Your task to perform on an android device: turn on showing notifications on the lock screen Image 0: 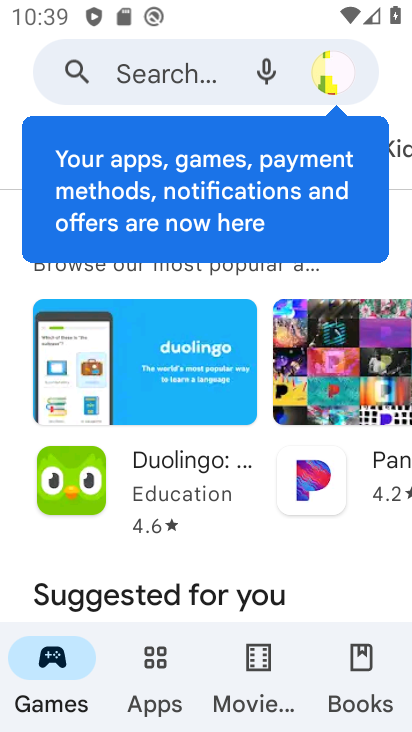
Step 0: press home button
Your task to perform on an android device: turn on showing notifications on the lock screen Image 1: 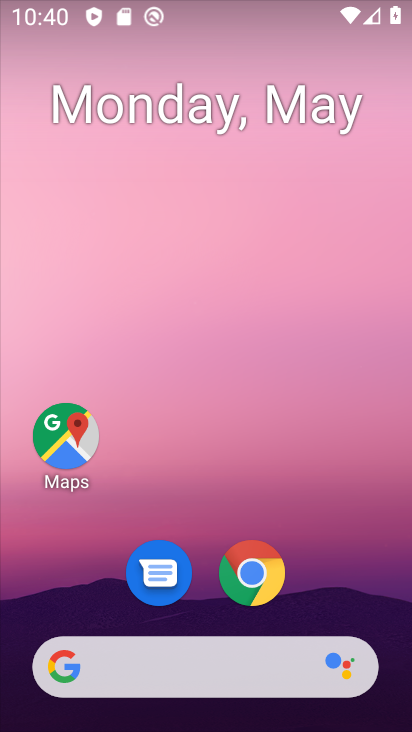
Step 1: drag from (332, 598) to (239, 88)
Your task to perform on an android device: turn on showing notifications on the lock screen Image 2: 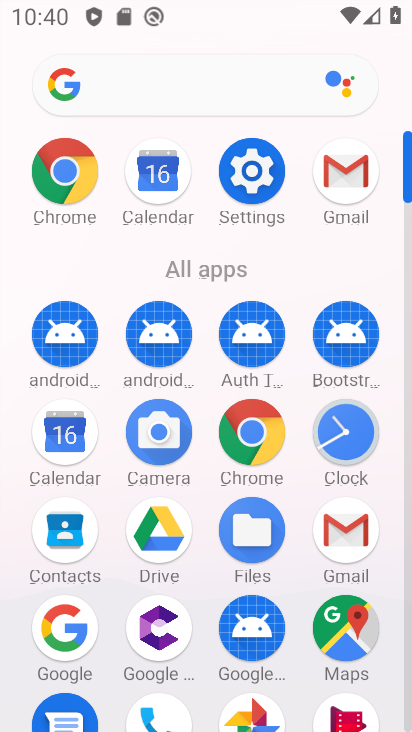
Step 2: click (243, 179)
Your task to perform on an android device: turn on showing notifications on the lock screen Image 3: 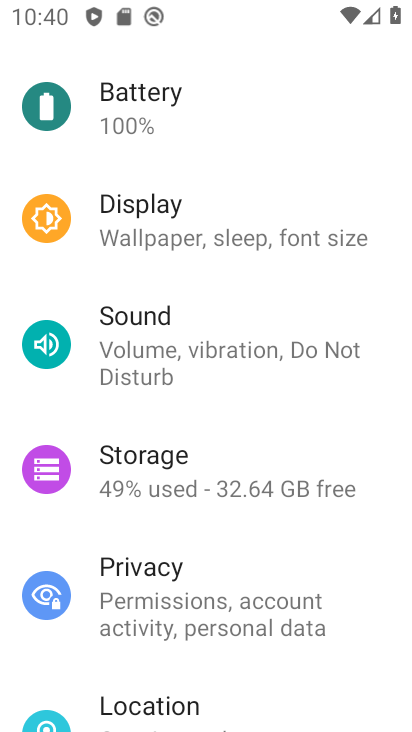
Step 3: drag from (236, 569) to (208, 114)
Your task to perform on an android device: turn on showing notifications on the lock screen Image 4: 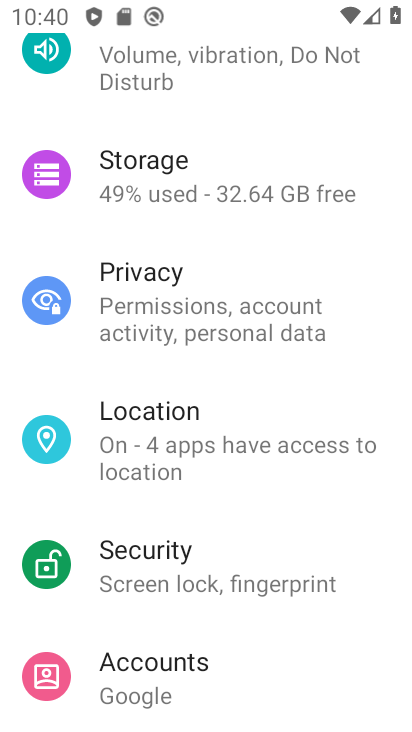
Step 4: drag from (205, 598) to (188, 128)
Your task to perform on an android device: turn on showing notifications on the lock screen Image 5: 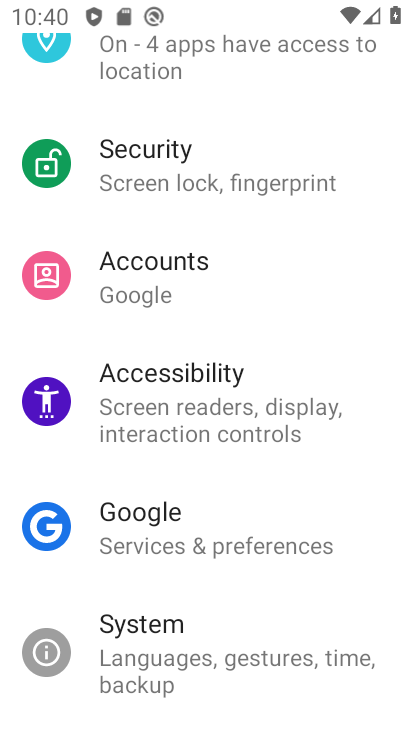
Step 5: drag from (224, 473) to (181, 142)
Your task to perform on an android device: turn on showing notifications on the lock screen Image 6: 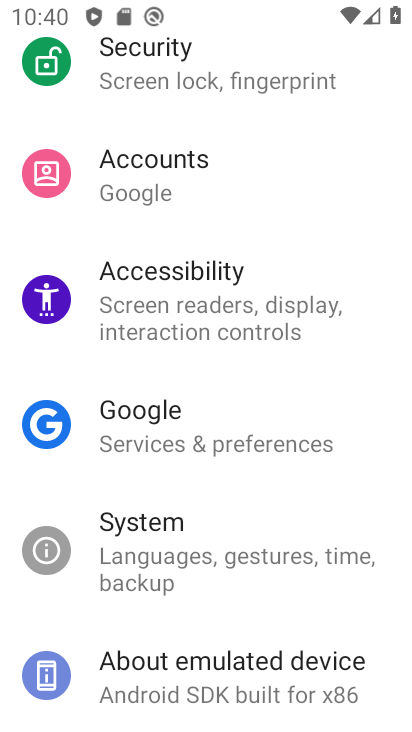
Step 6: drag from (200, 178) to (188, 721)
Your task to perform on an android device: turn on showing notifications on the lock screen Image 7: 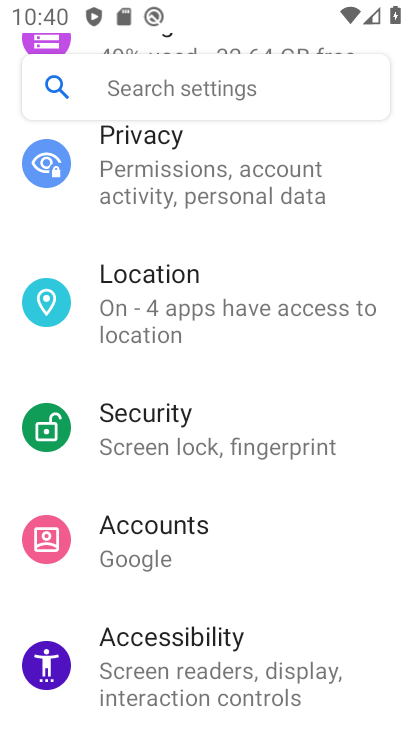
Step 7: drag from (220, 203) to (222, 650)
Your task to perform on an android device: turn on showing notifications on the lock screen Image 8: 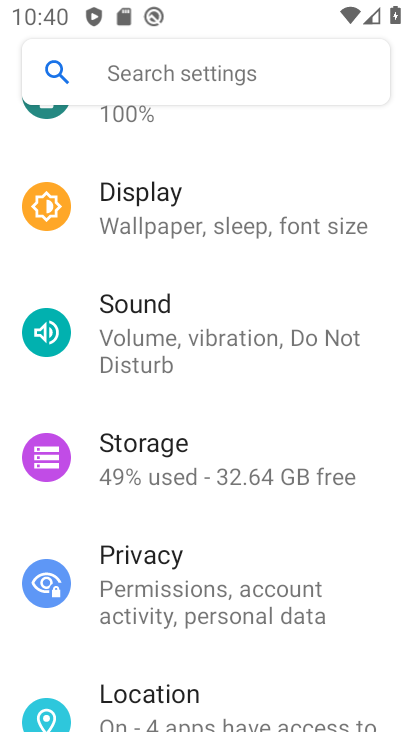
Step 8: drag from (171, 207) to (190, 594)
Your task to perform on an android device: turn on showing notifications on the lock screen Image 9: 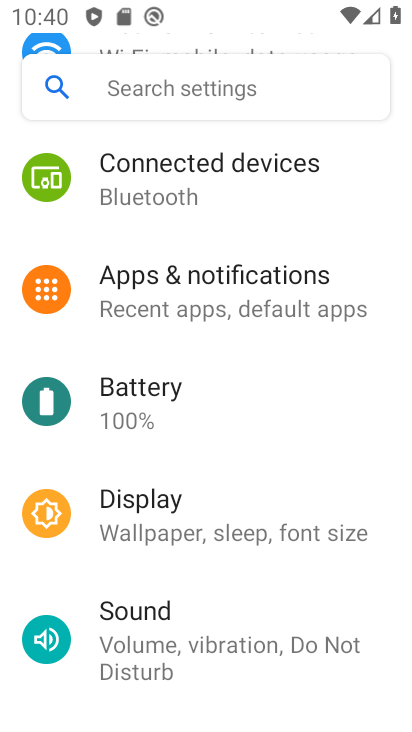
Step 9: drag from (187, 206) to (180, 600)
Your task to perform on an android device: turn on showing notifications on the lock screen Image 10: 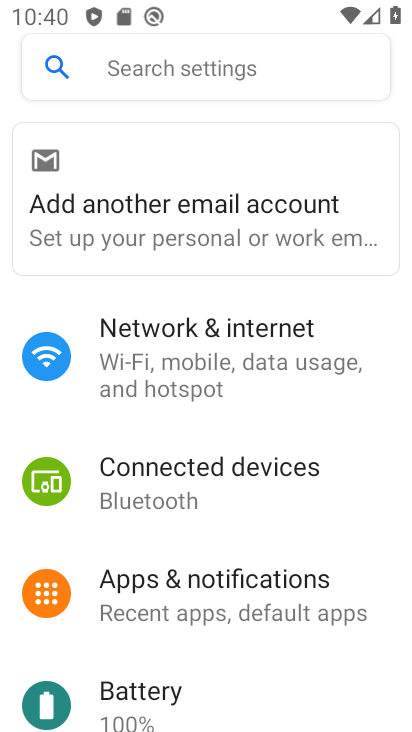
Step 10: click (190, 588)
Your task to perform on an android device: turn on showing notifications on the lock screen Image 11: 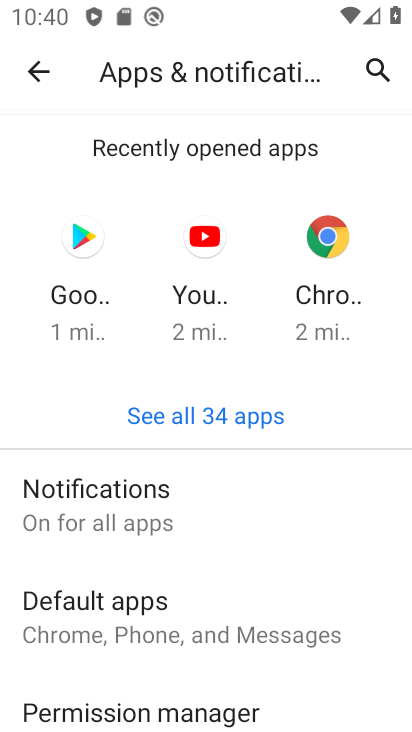
Step 11: click (231, 512)
Your task to perform on an android device: turn on showing notifications on the lock screen Image 12: 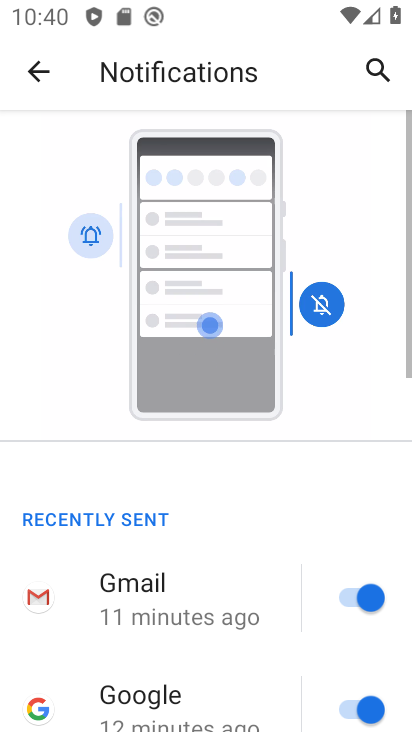
Step 12: drag from (261, 641) to (258, 65)
Your task to perform on an android device: turn on showing notifications on the lock screen Image 13: 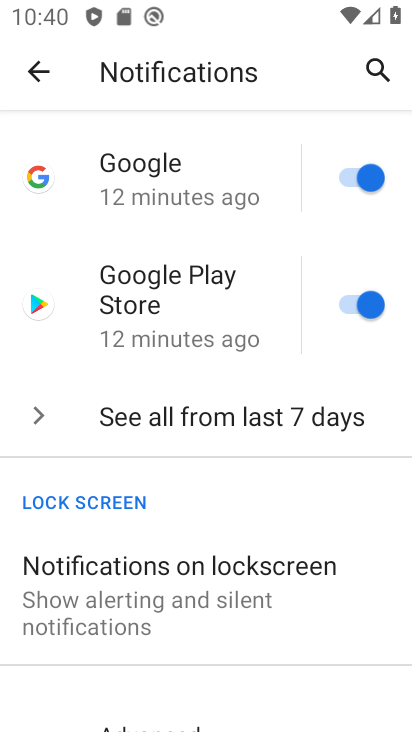
Step 13: drag from (196, 562) to (196, 424)
Your task to perform on an android device: turn on showing notifications on the lock screen Image 14: 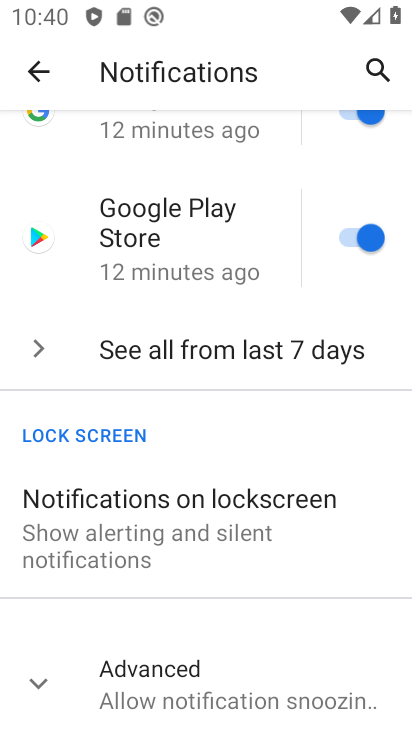
Step 14: click (210, 517)
Your task to perform on an android device: turn on showing notifications on the lock screen Image 15: 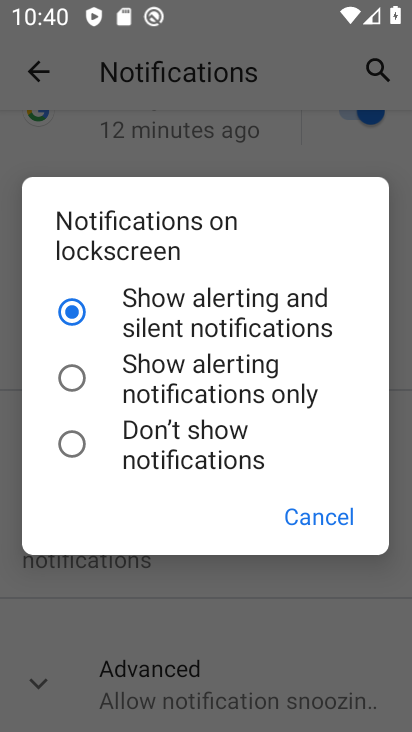
Step 15: task complete